Your task to perform on an android device: turn on notifications settings in the gmail app Image 0: 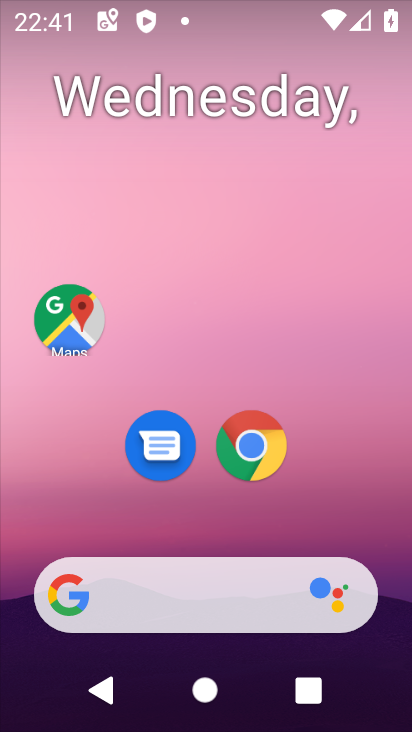
Step 0: drag from (309, 491) to (333, 27)
Your task to perform on an android device: turn on notifications settings in the gmail app Image 1: 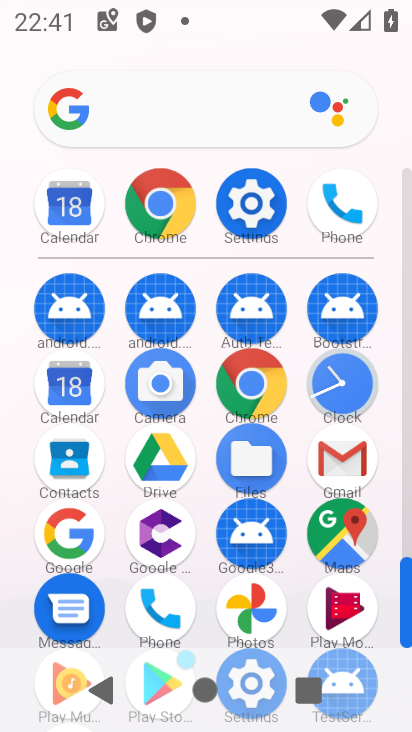
Step 1: click (339, 458)
Your task to perform on an android device: turn on notifications settings in the gmail app Image 2: 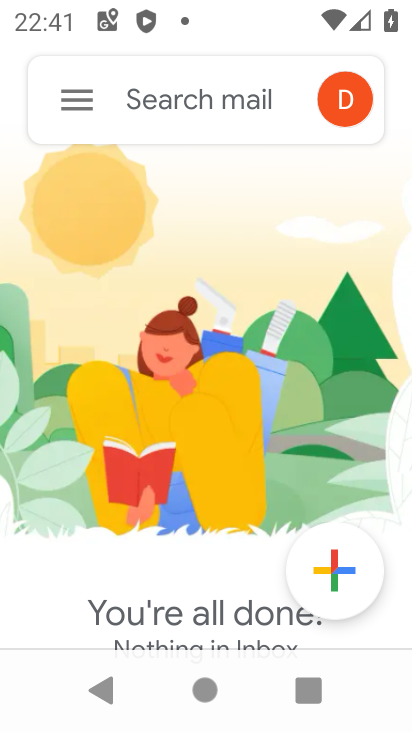
Step 2: click (65, 105)
Your task to perform on an android device: turn on notifications settings in the gmail app Image 3: 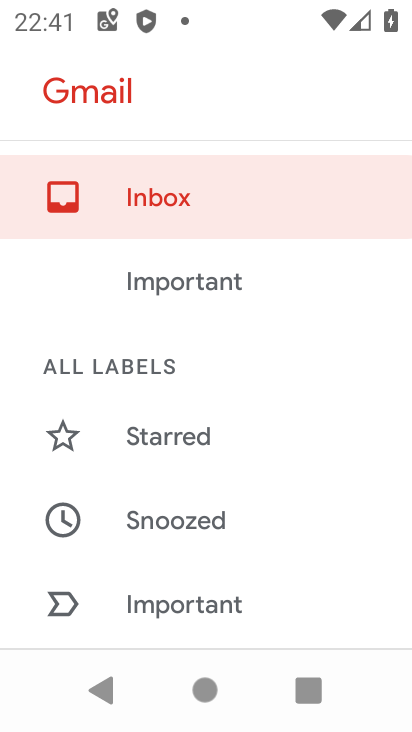
Step 3: drag from (189, 568) to (220, 195)
Your task to perform on an android device: turn on notifications settings in the gmail app Image 4: 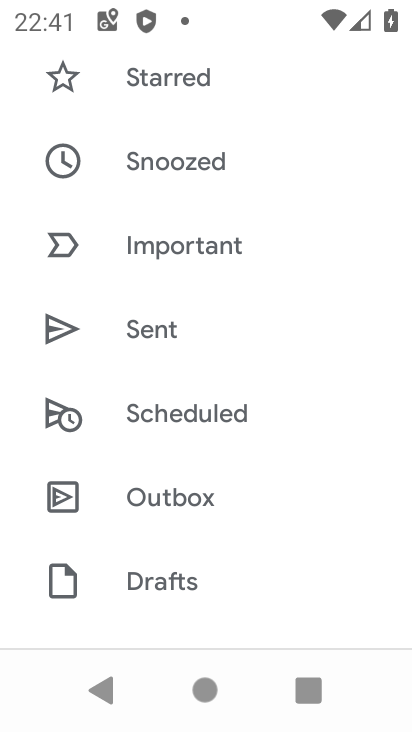
Step 4: drag from (182, 594) to (268, 234)
Your task to perform on an android device: turn on notifications settings in the gmail app Image 5: 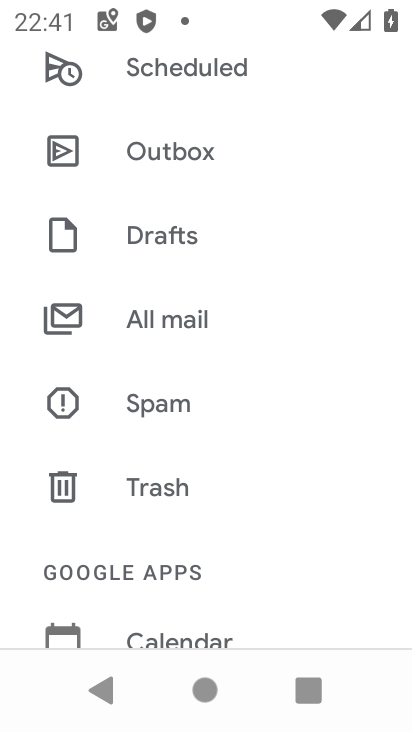
Step 5: drag from (206, 549) to (250, 278)
Your task to perform on an android device: turn on notifications settings in the gmail app Image 6: 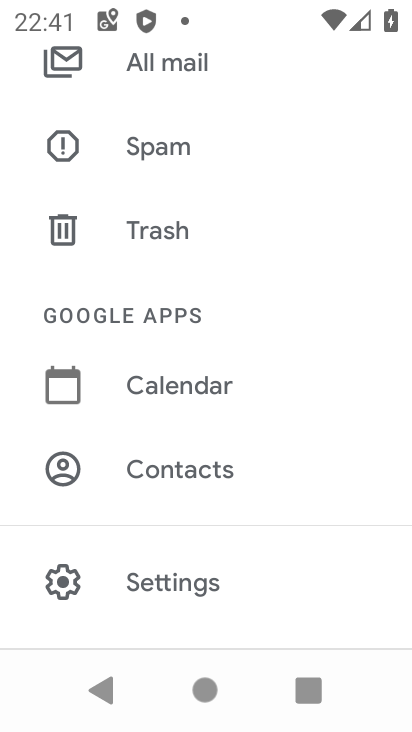
Step 6: click (128, 573)
Your task to perform on an android device: turn on notifications settings in the gmail app Image 7: 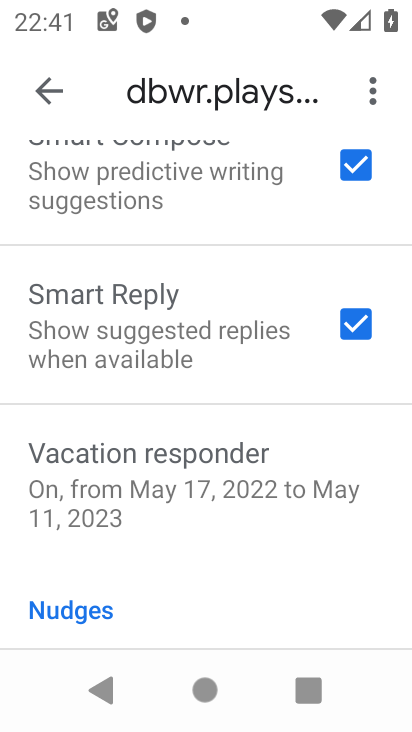
Step 7: drag from (186, 215) to (148, 722)
Your task to perform on an android device: turn on notifications settings in the gmail app Image 8: 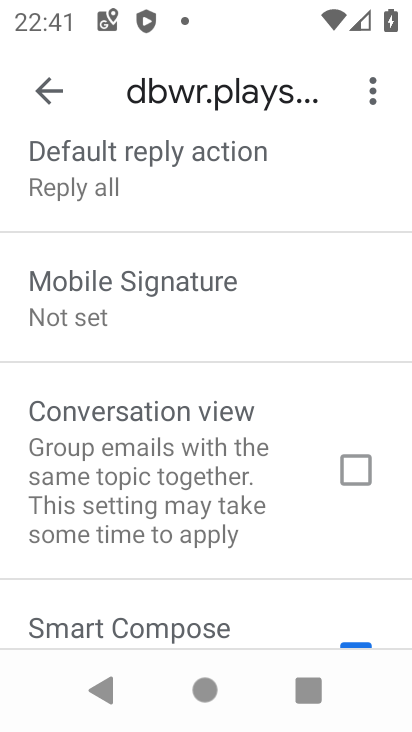
Step 8: drag from (186, 228) to (167, 557)
Your task to perform on an android device: turn on notifications settings in the gmail app Image 9: 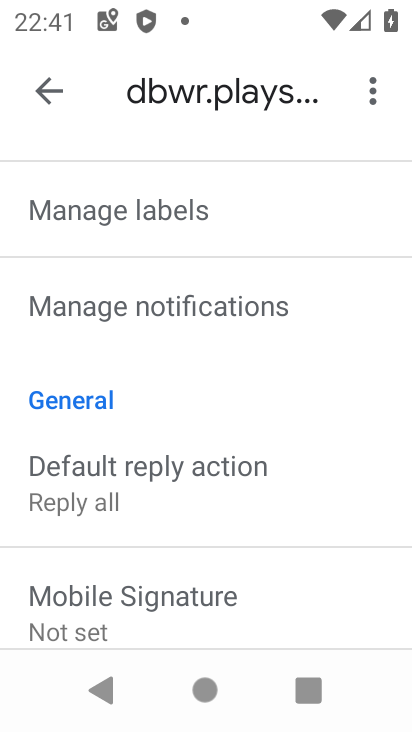
Step 9: drag from (152, 243) to (170, 545)
Your task to perform on an android device: turn on notifications settings in the gmail app Image 10: 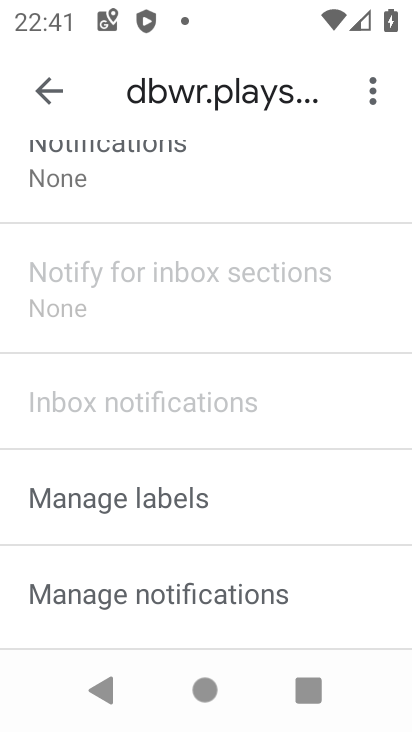
Step 10: drag from (159, 218) to (161, 416)
Your task to perform on an android device: turn on notifications settings in the gmail app Image 11: 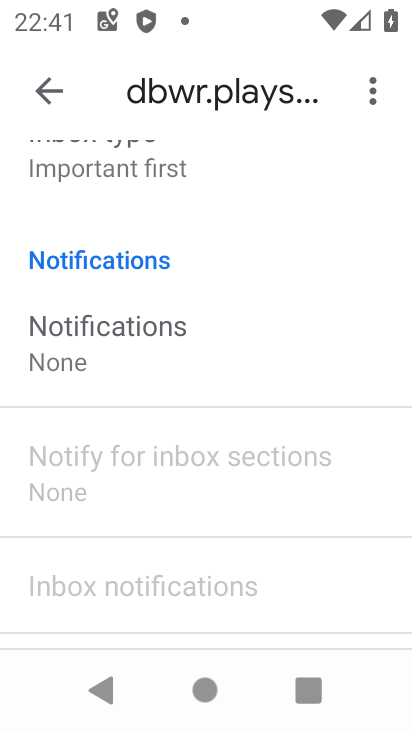
Step 11: click (119, 339)
Your task to perform on an android device: turn on notifications settings in the gmail app Image 12: 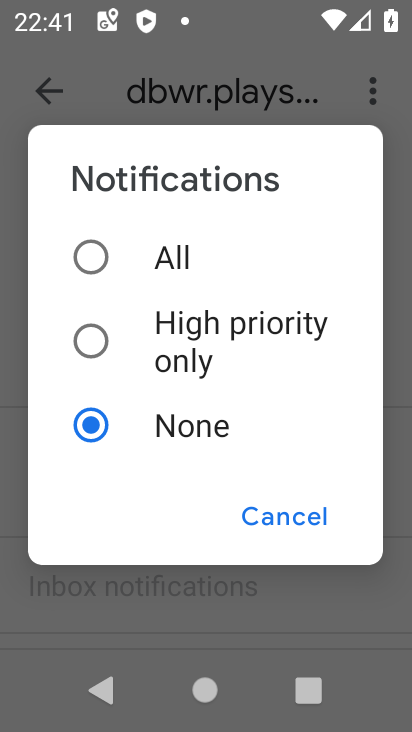
Step 12: click (161, 254)
Your task to perform on an android device: turn on notifications settings in the gmail app Image 13: 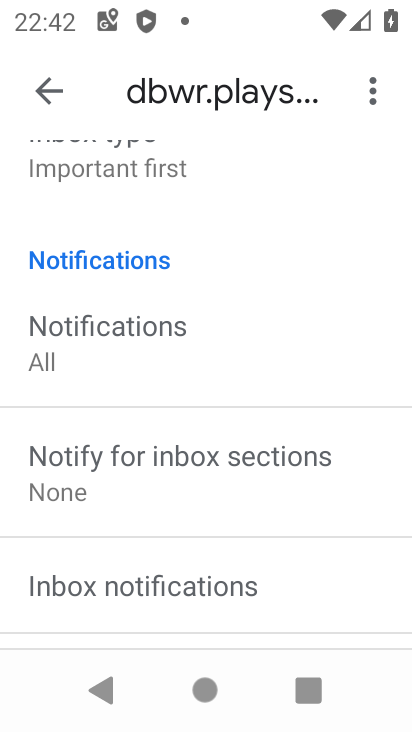
Step 13: task complete